Your task to perform on an android device: set the timer Image 0: 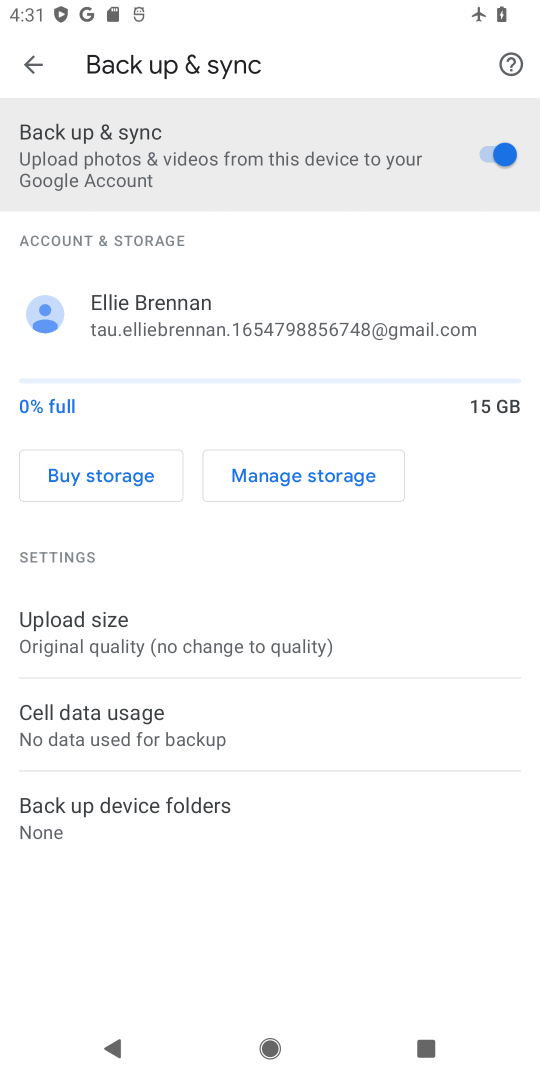
Step 0: press home button
Your task to perform on an android device: set the timer Image 1: 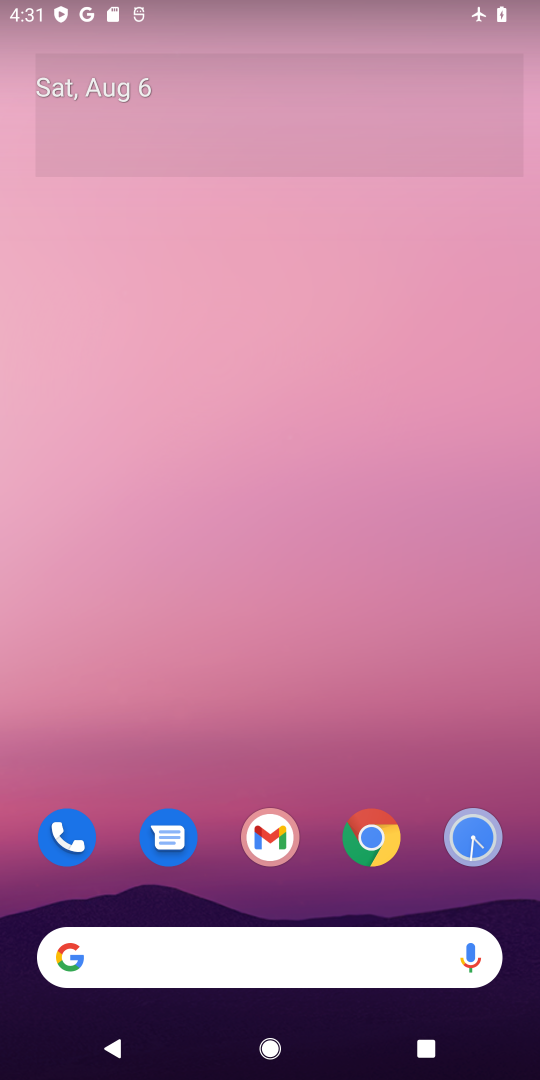
Step 1: click (472, 838)
Your task to perform on an android device: set the timer Image 2: 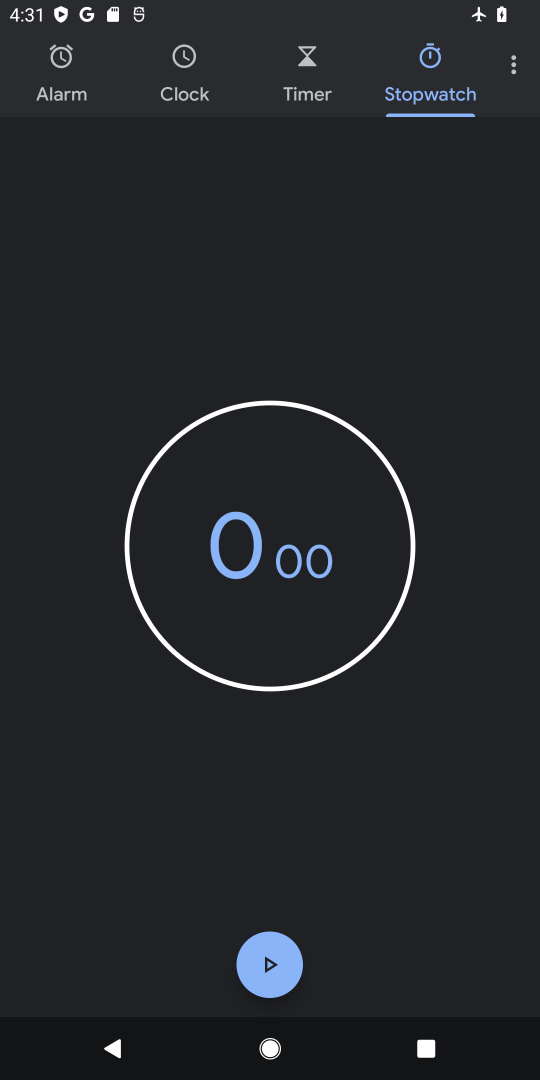
Step 2: click (288, 93)
Your task to perform on an android device: set the timer Image 3: 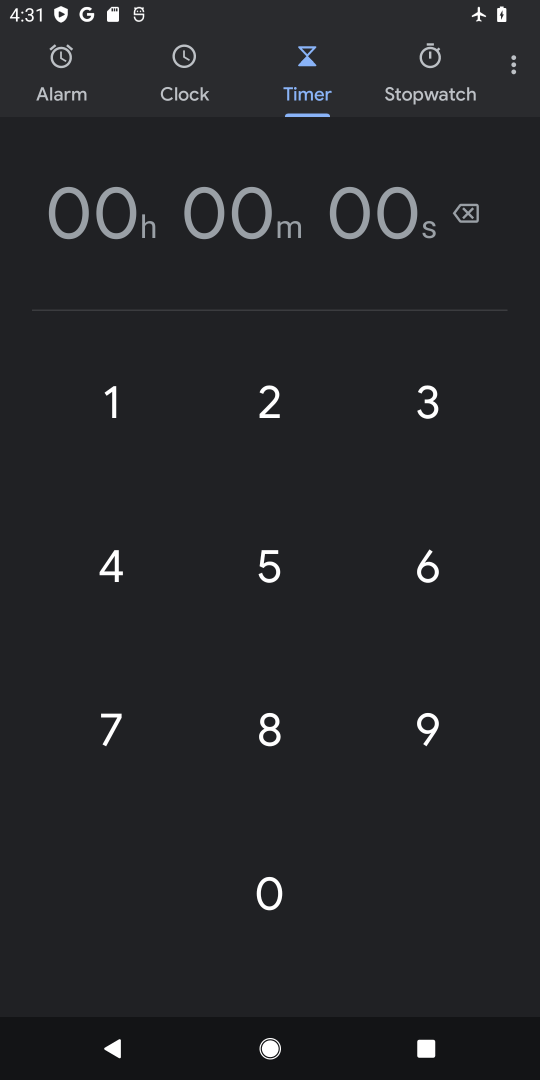
Step 3: click (109, 406)
Your task to perform on an android device: set the timer Image 4: 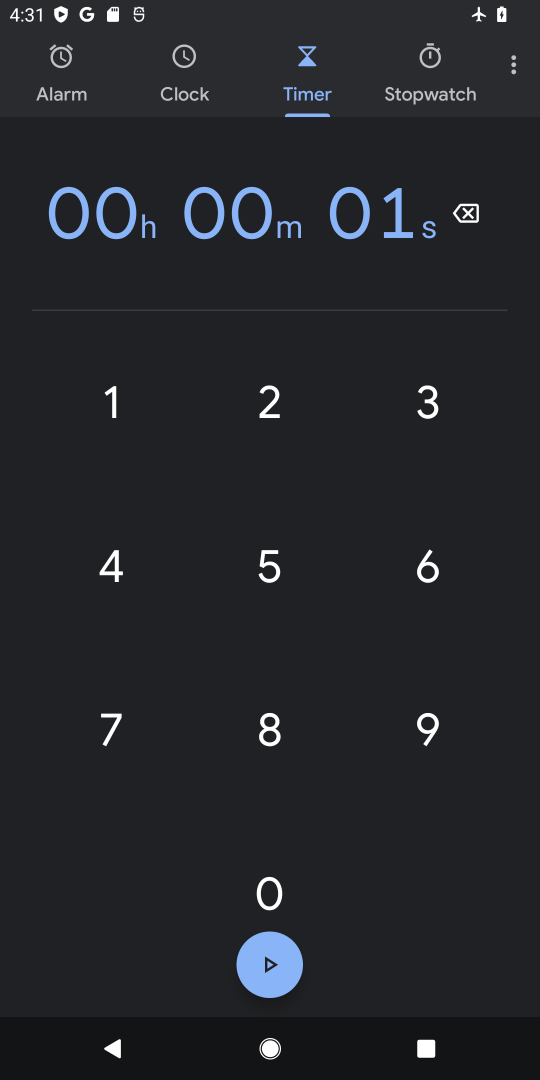
Step 4: click (439, 407)
Your task to perform on an android device: set the timer Image 5: 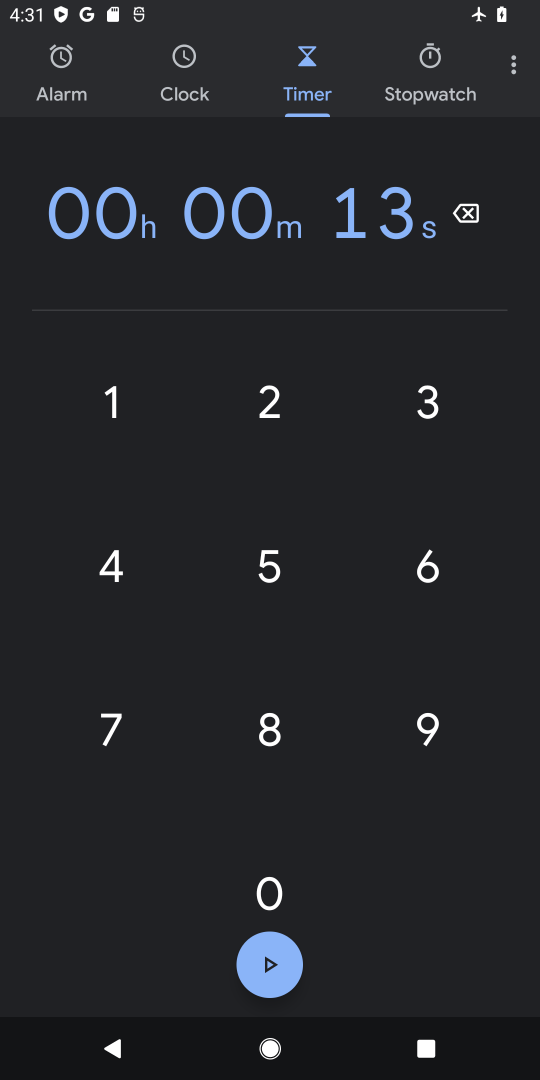
Step 5: click (267, 880)
Your task to perform on an android device: set the timer Image 6: 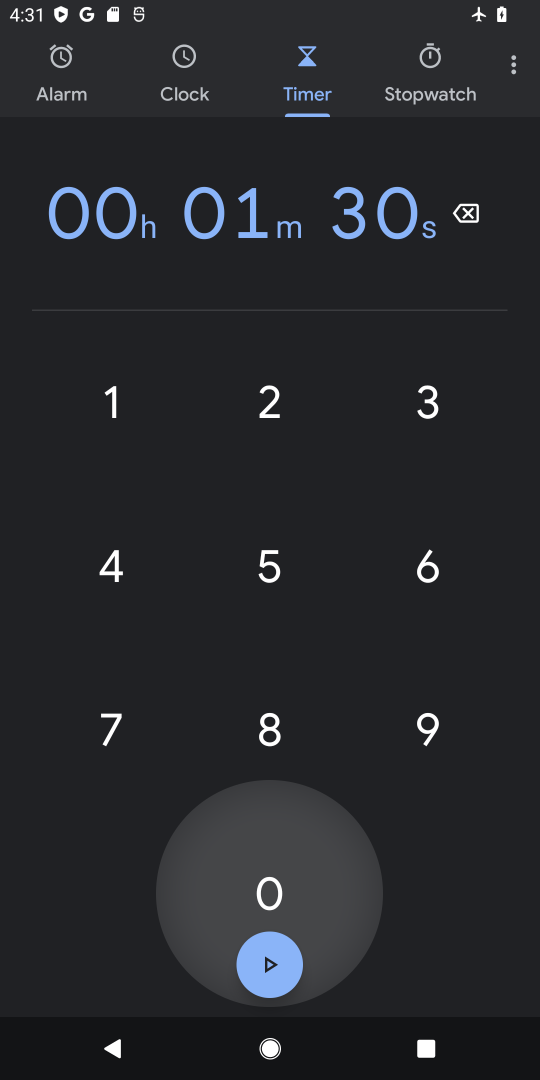
Step 6: click (267, 880)
Your task to perform on an android device: set the timer Image 7: 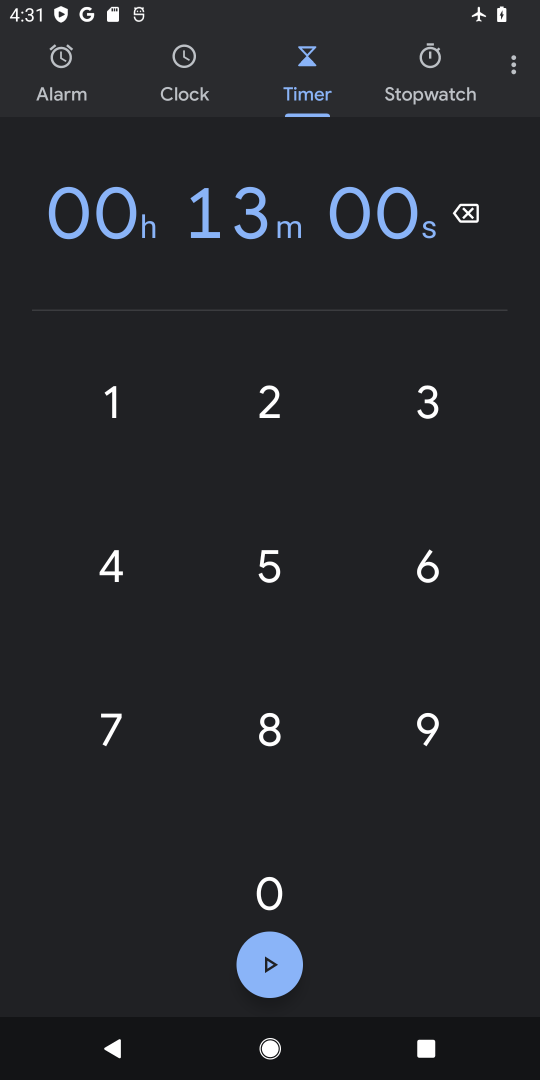
Step 7: click (267, 880)
Your task to perform on an android device: set the timer Image 8: 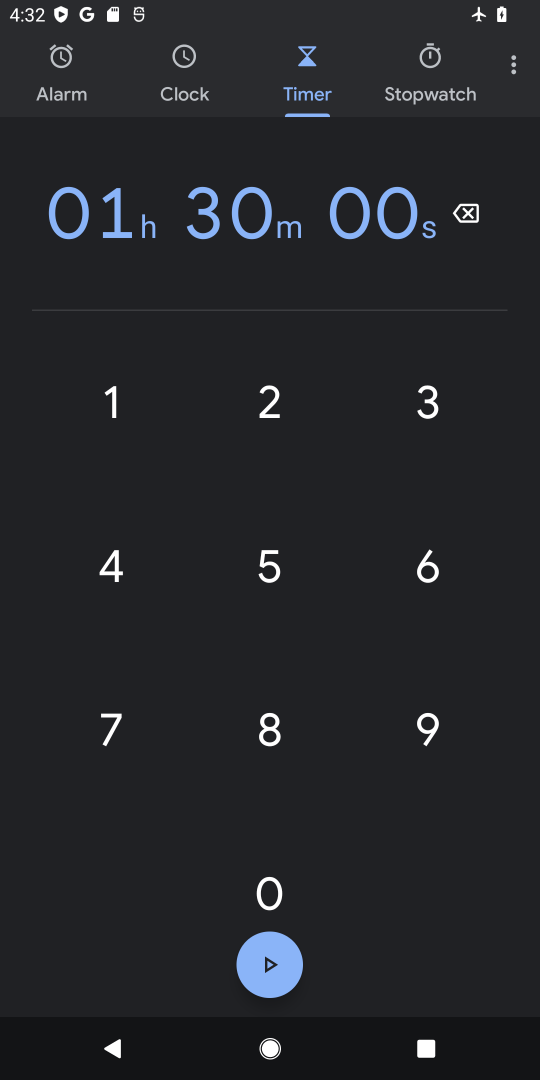
Step 8: task complete